Your task to perform on an android device: Empty the shopping cart on ebay.com. Add "razer blade" to the cart on ebay.com, then select checkout. Image 0: 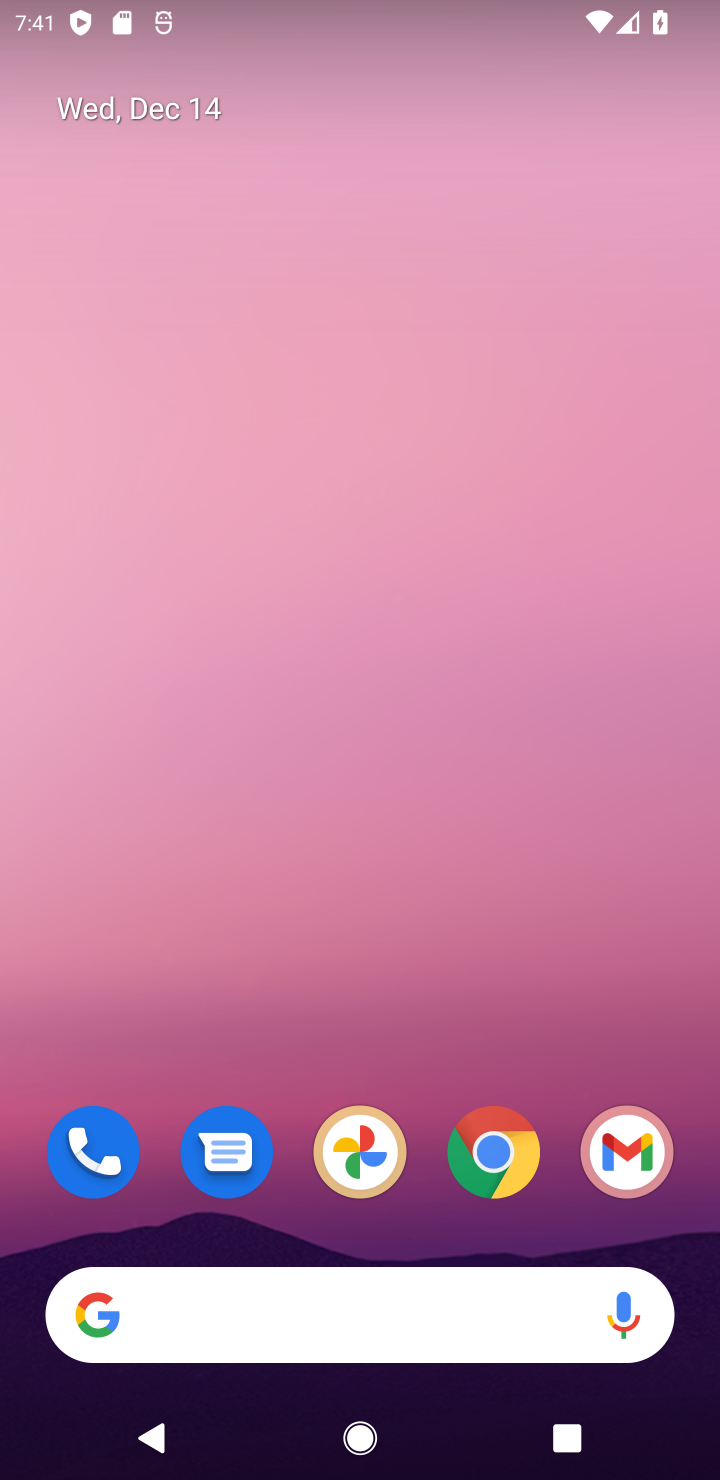
Step 0: click (496, 1167)
Your task to perform on an android device: Empty the shopping cart on ebay.com. Add "razer blade" to the cart on ebay.com, then select checkout. Image 1: 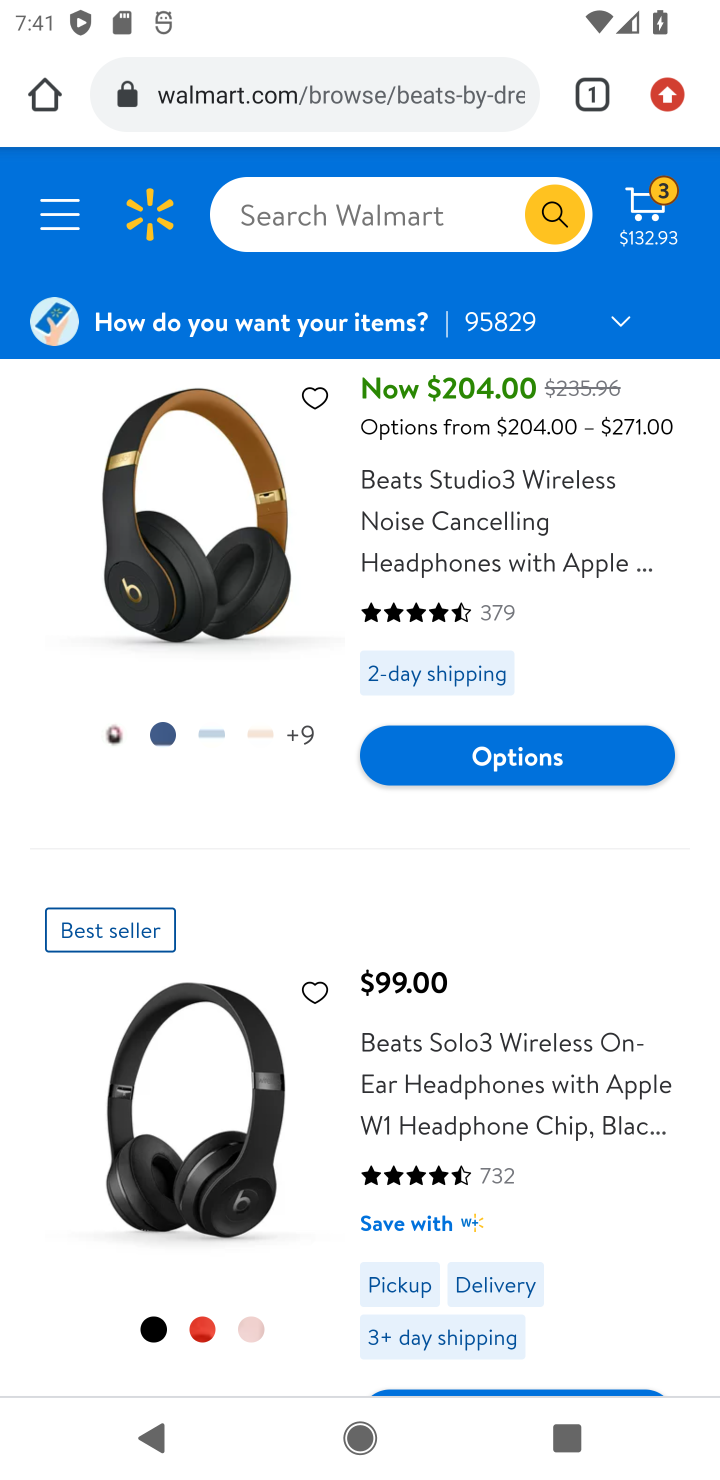
Step 1: click (313, 90)
Your task to perform on an android device: Empty the shopping cart on ebay.com. Add "razer blade" to the cart on ebay.com, then select checkout. Image 2: 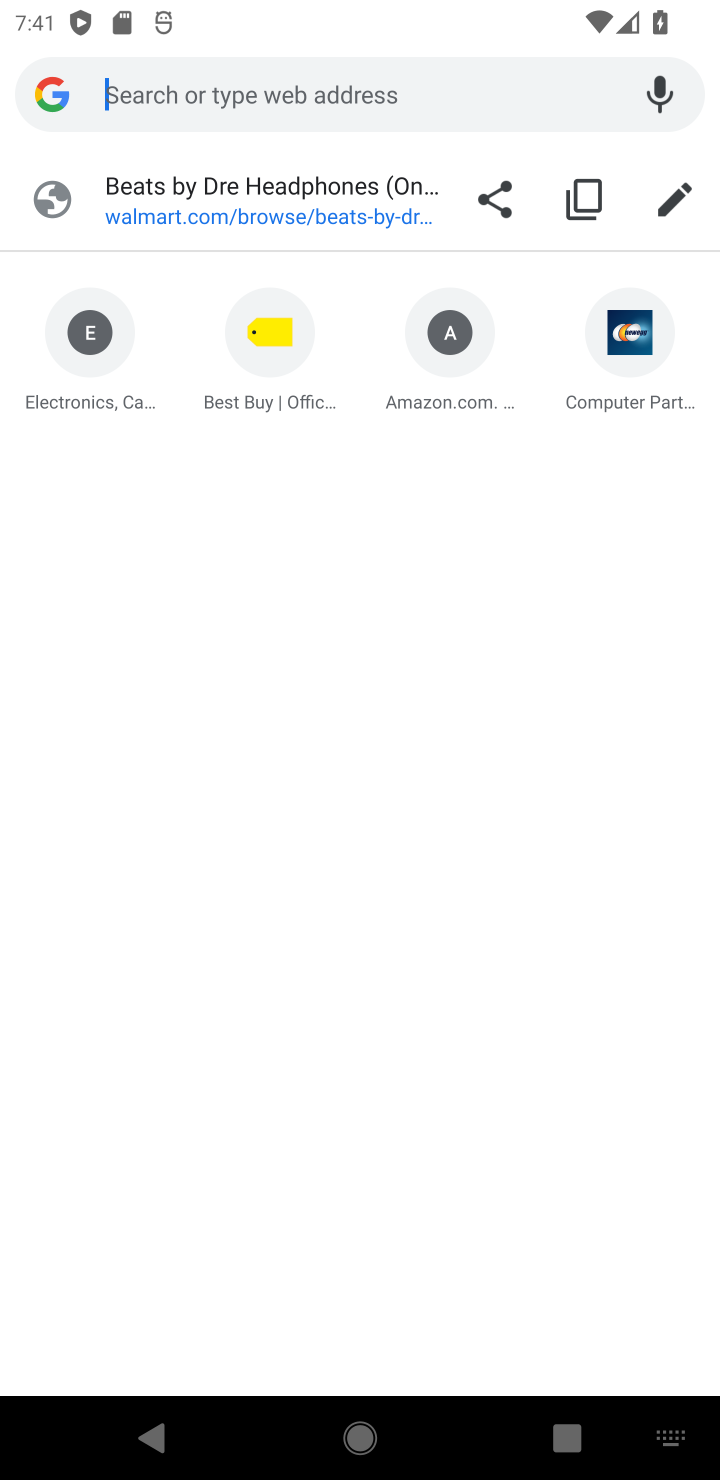
Step 2: type "ebay.com"
Your task to perform on an android device: Empty the shopping cart on ebay.com. Add "razer blade" to the cart on ebay.com, then select checkout. Image 3: 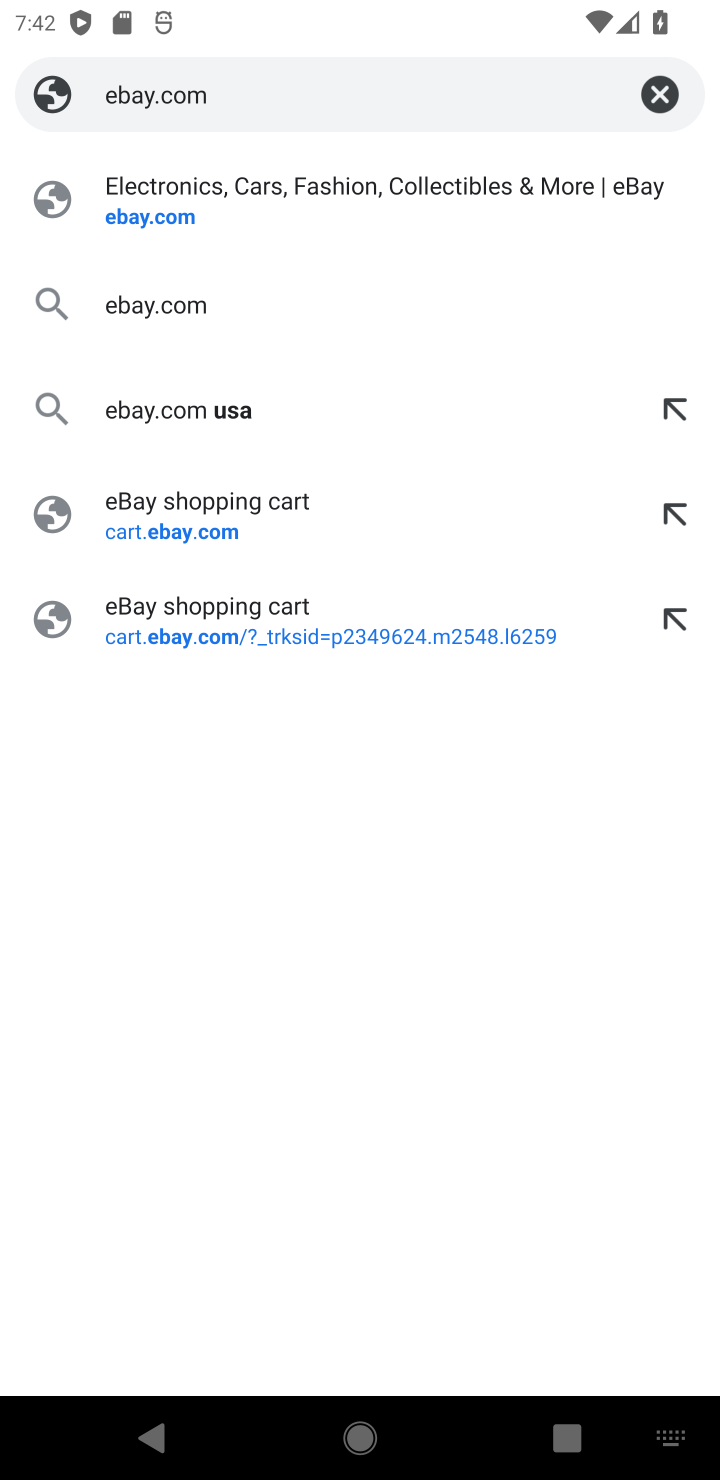
Step 3: click (164, 208)
Your task to perform on an android device: Empty the shopping cart on ebay.com. Add "razer blade" to the cart on ebay.com, then select checkout. Image 4: 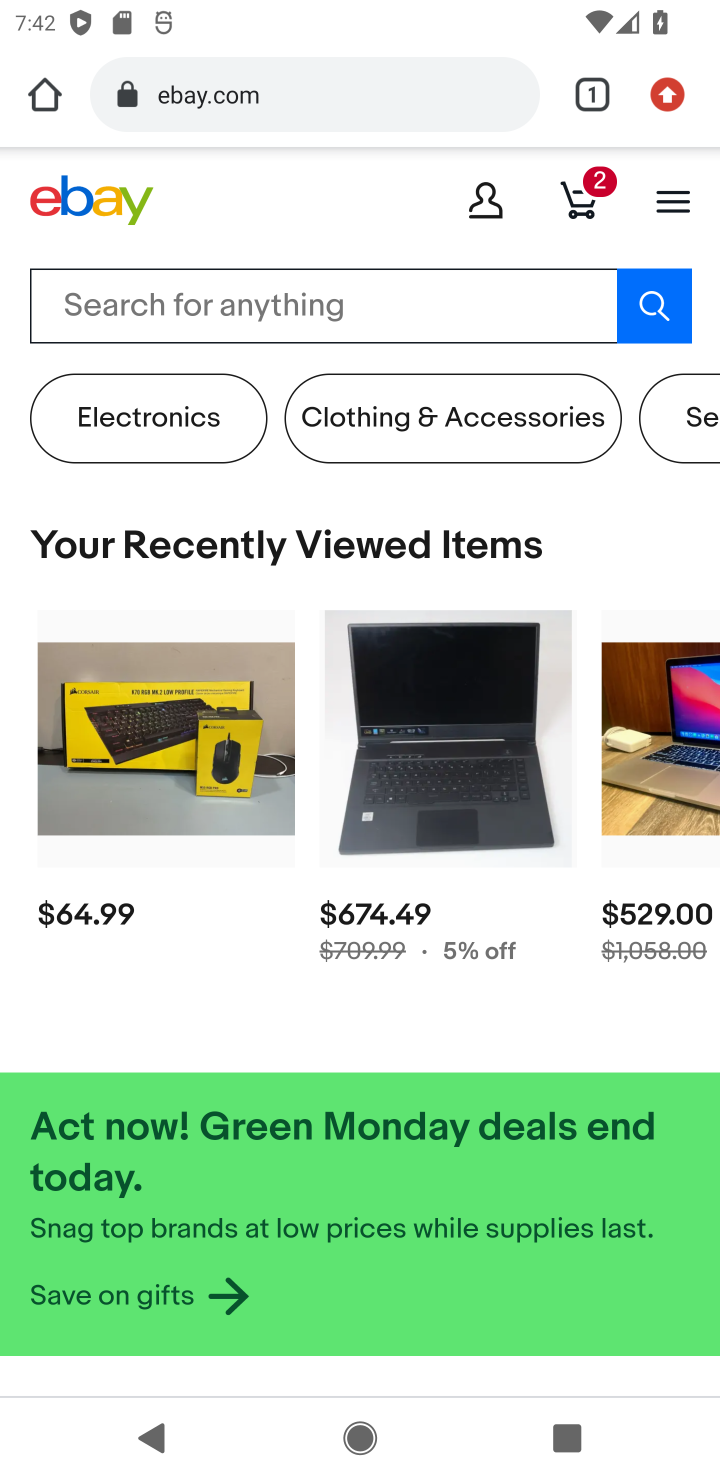
Step 4: click (597, 195)
Your task to perform on an android device: Empty the shopping cart on ebay.com. Add "razer blade" to the cart on ebay.com, then select checkout. Image 5: 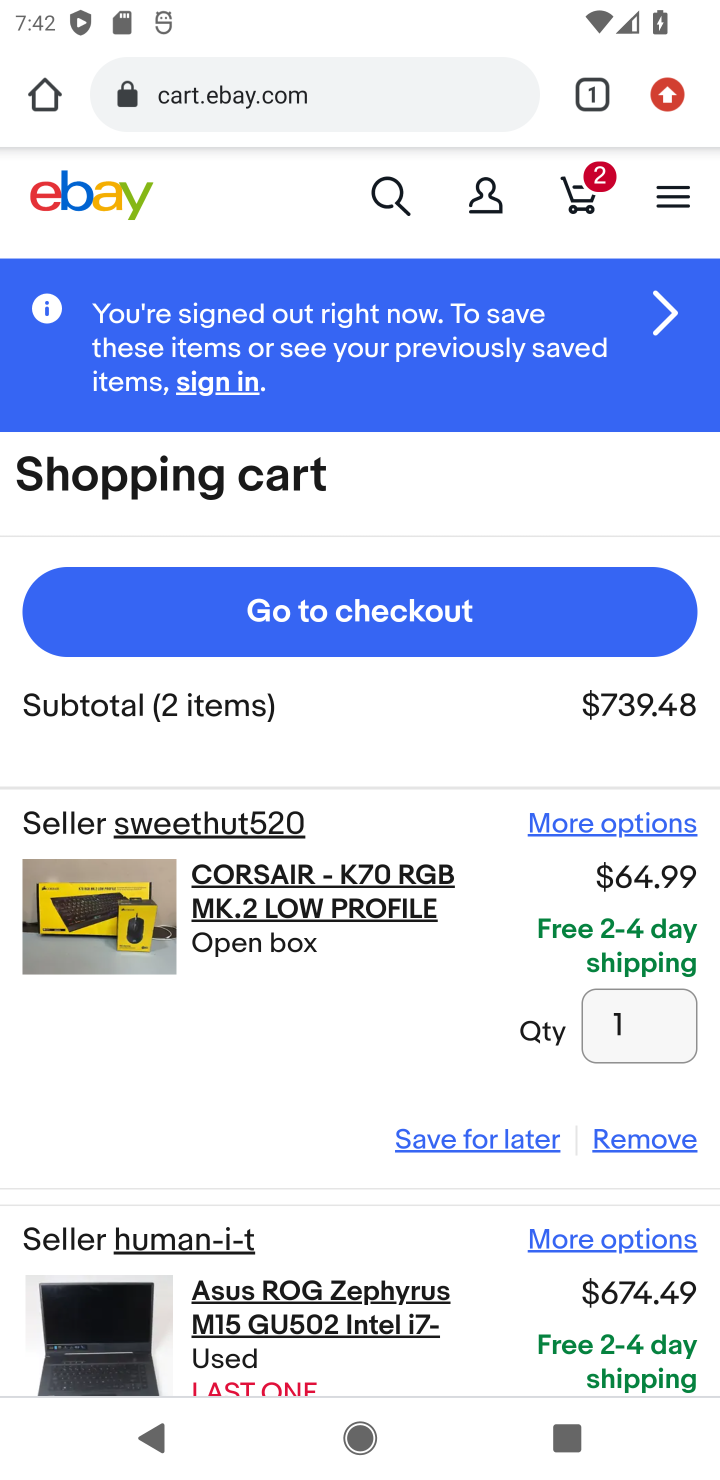
Step 5: click (647, 1130)
Your task to perform on an android device: Empty the shopping cart on ebay.com. Add "razer blade" to the cart on ebay.com, then select checkout. Image 6: 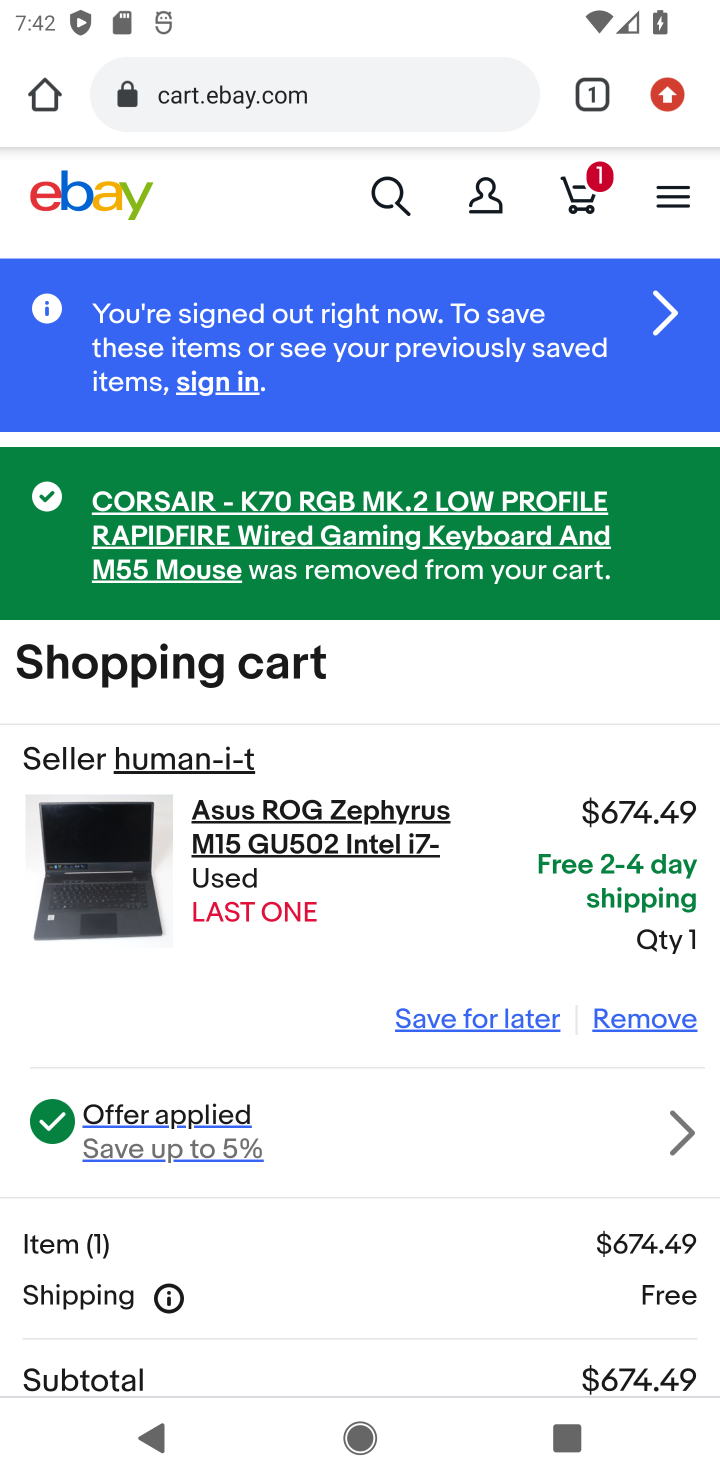
Step 6: click (625, 1026)
Your task to perform on an android device: Empty the shopping cart on ebay.com. Add "razer blade" to the cart on ebay.com, then select checkout. Image 7: 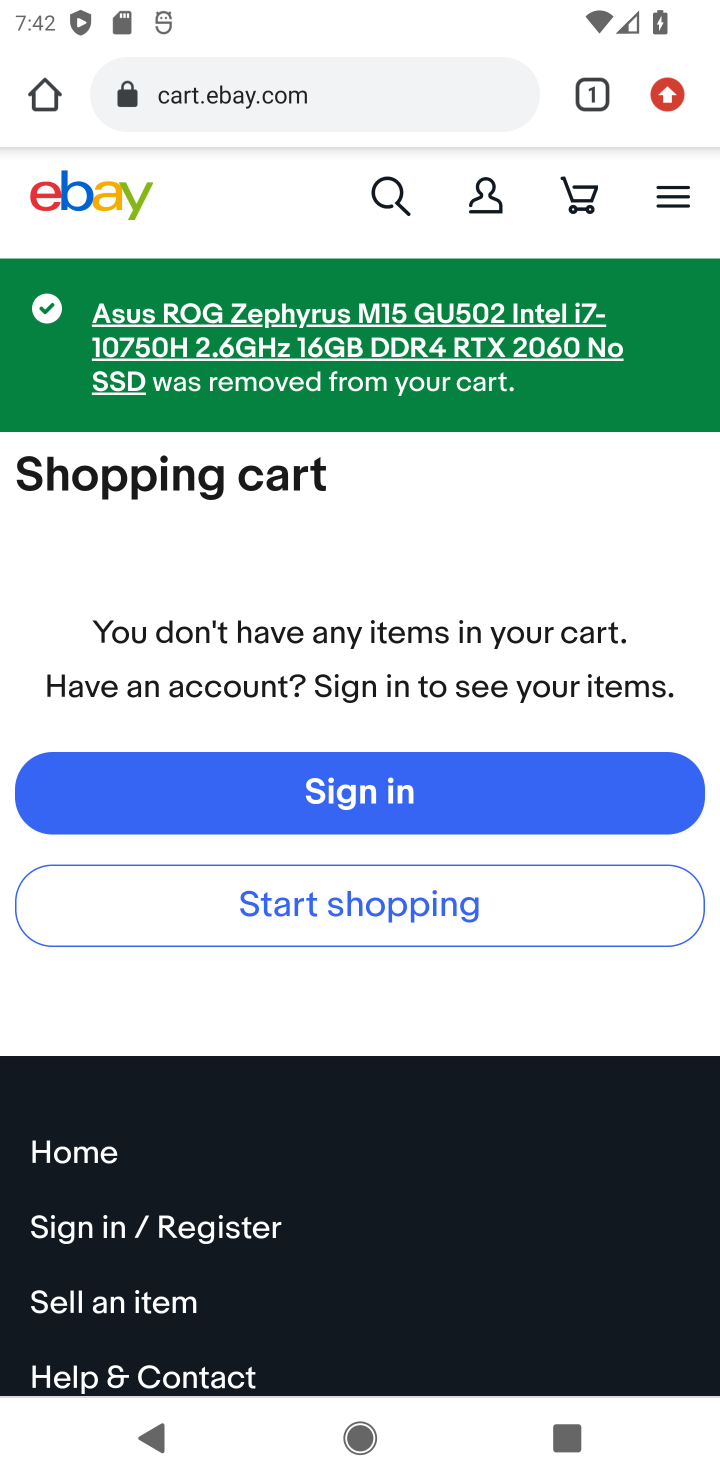
Step 7: click (383, 201)
Your task to perform on an android device: Empty the shopping cart on ebay.com. Add "razer blade" to the cart on ebay.com, then select checkout. Image 8: 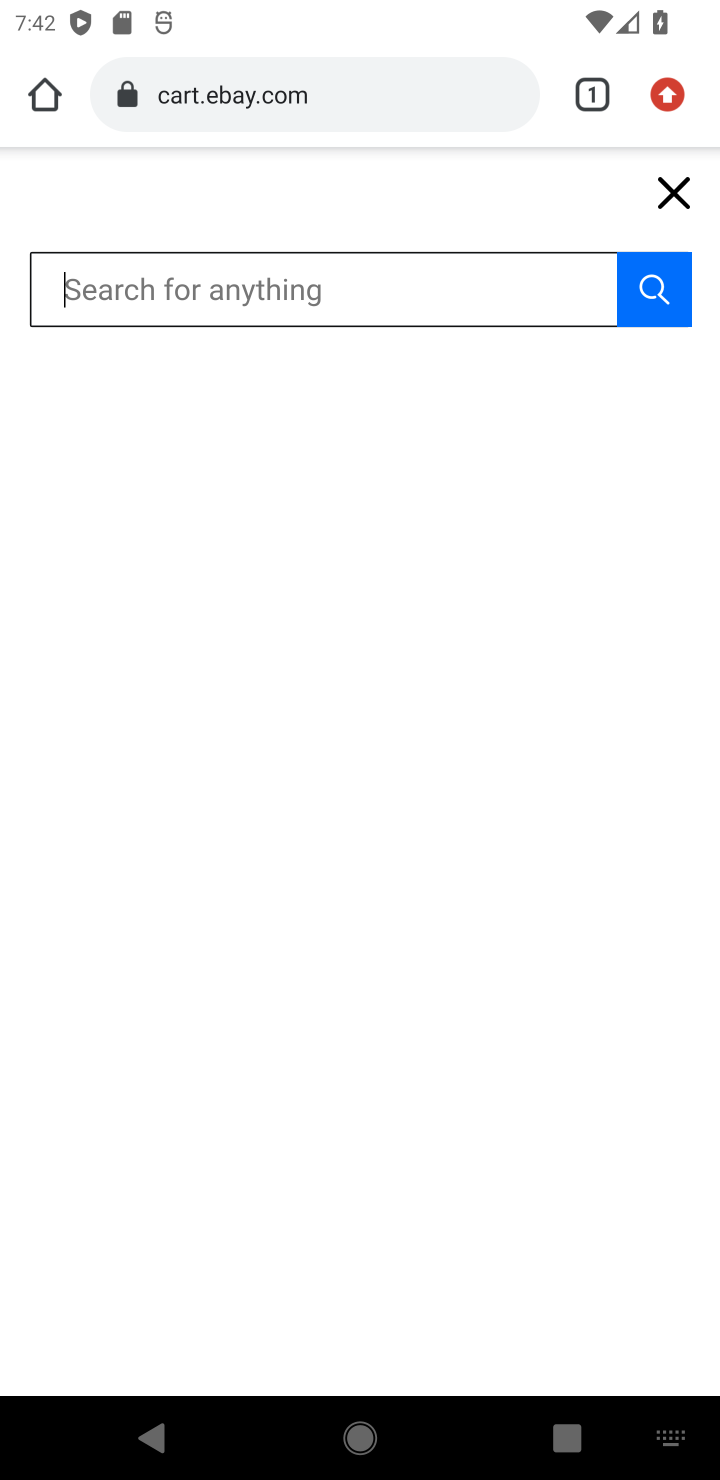
Step 8: type "razer blade"
Your task to perform on an android device: Empty the shopping cart on ebay.com. Add "razer blade" to the cart on ebay.com, then select checkout. Image 9: 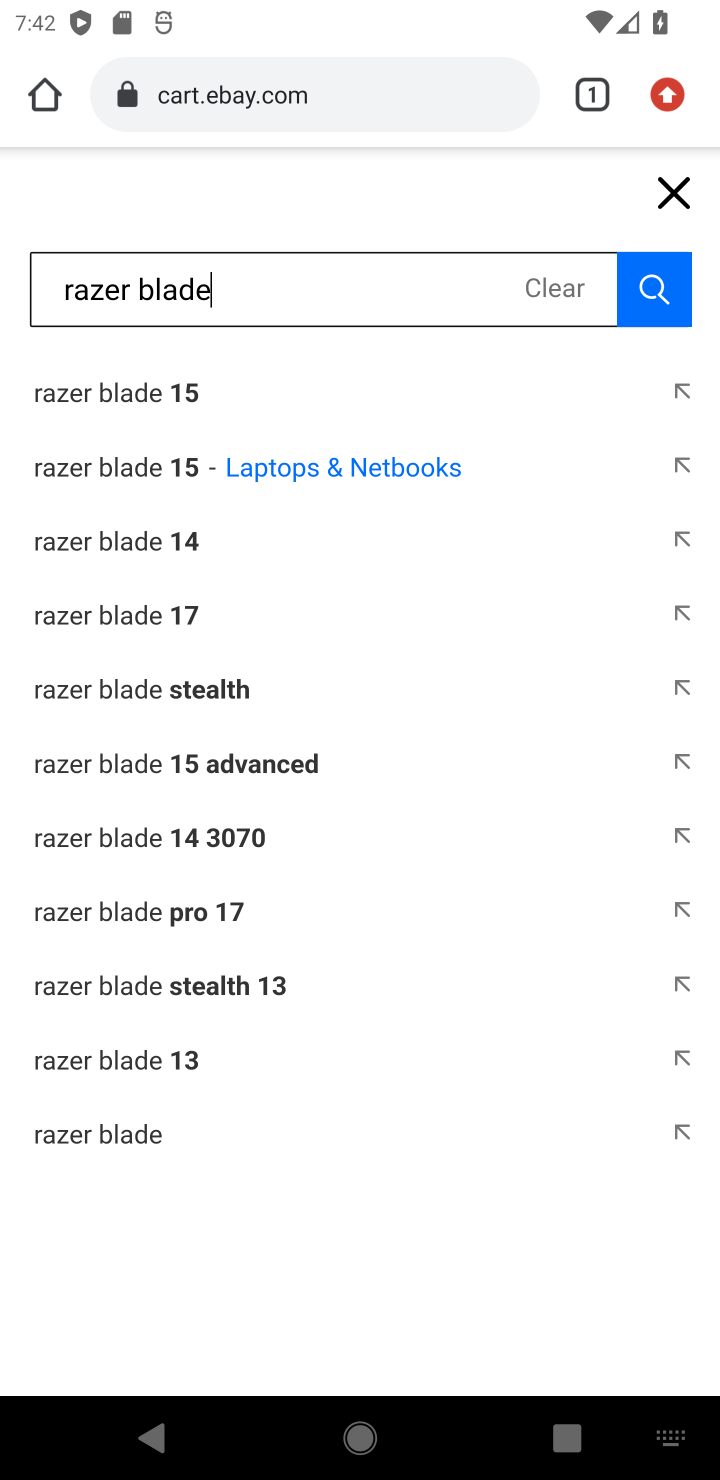
Step 9: click (150, 1143)
Your task to perform on an android device: Empty the shopping cart on ebay.com. Add "razer blade" to the cart on ebay.com, then select checkout. Image 10: 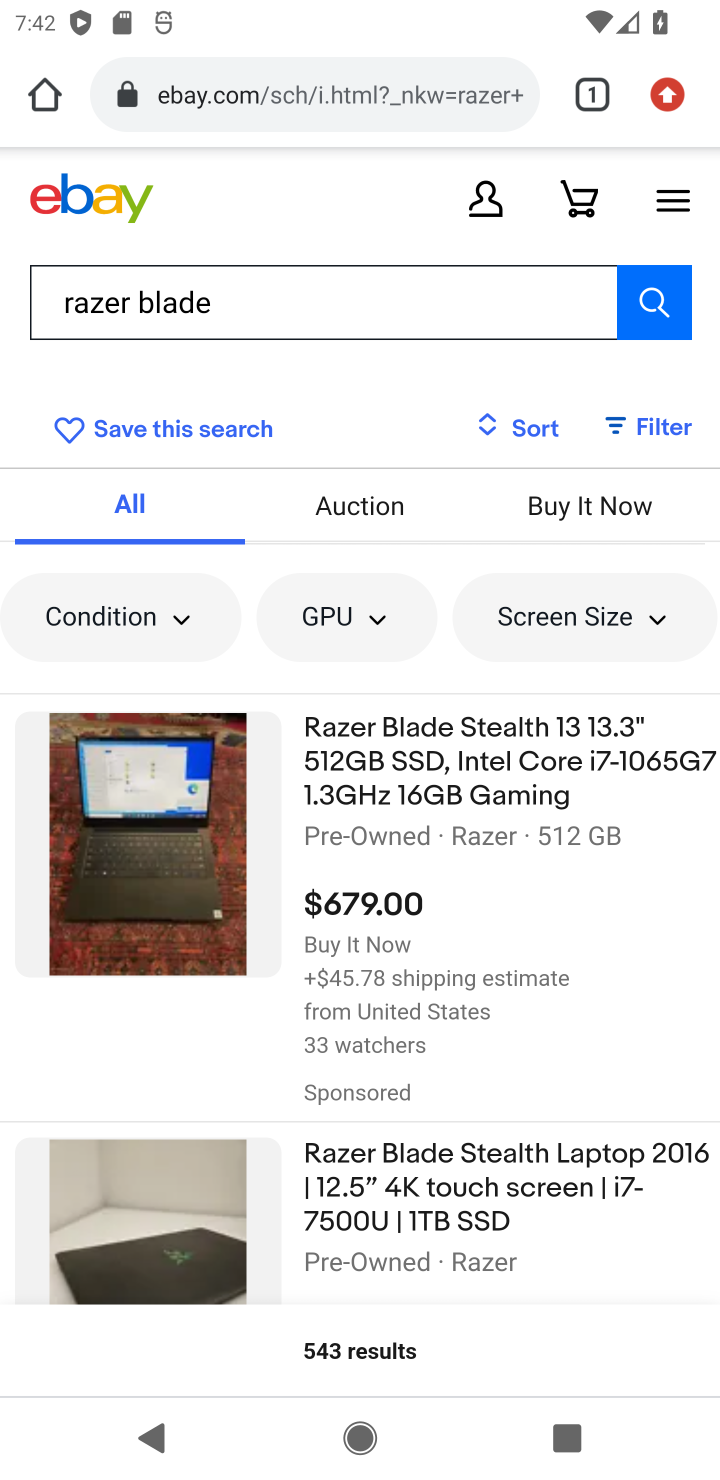
Step 10: click (350, 792)
Your task to perform on an android device: Empty the shopping cart on ebay.com. Add "razer blade" to the cart on ebay.com, then select checkout. Image 11: 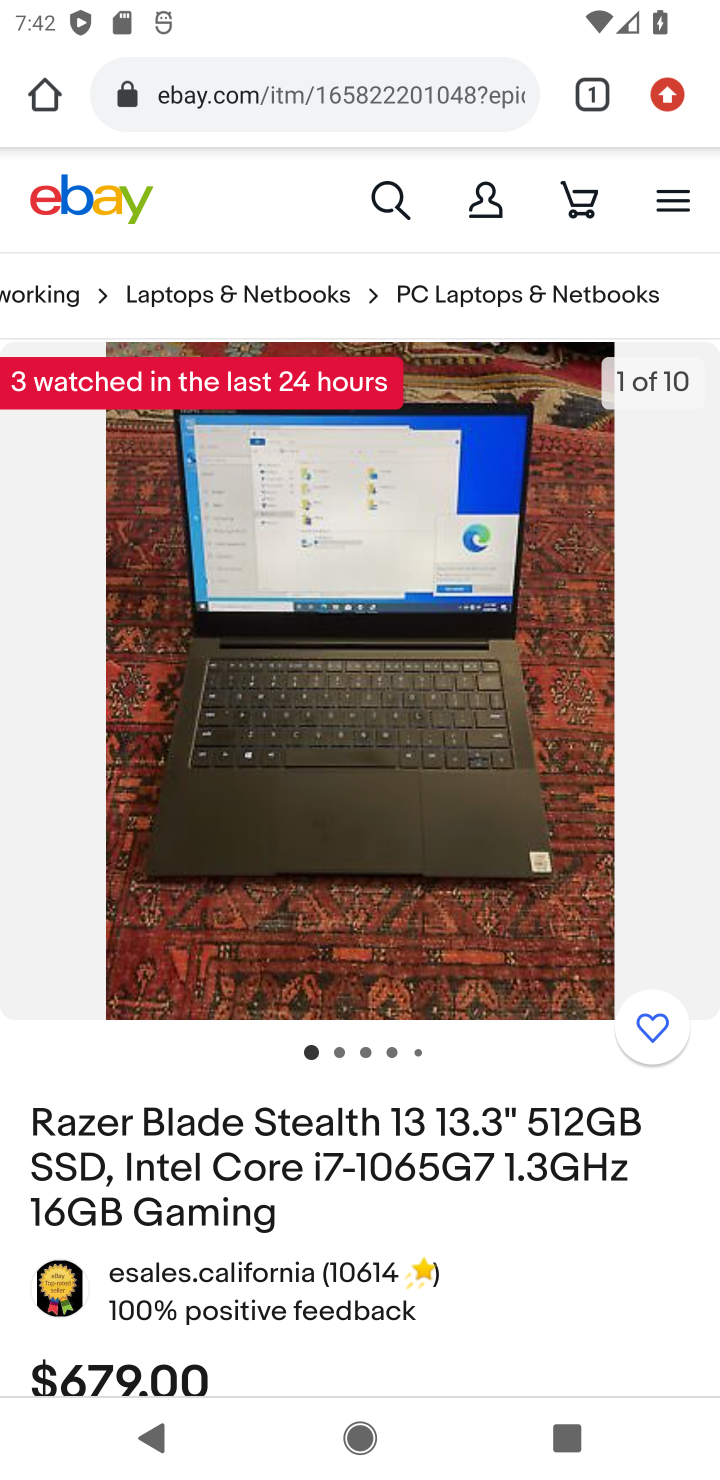
Step 11: drag from (381, 919) to (349, 401)
Your task to perform on an android device: Empty the shopping cart on ebay.com. Add "razer blade" to the cart on ebay.com, then select checkout. Image 12: 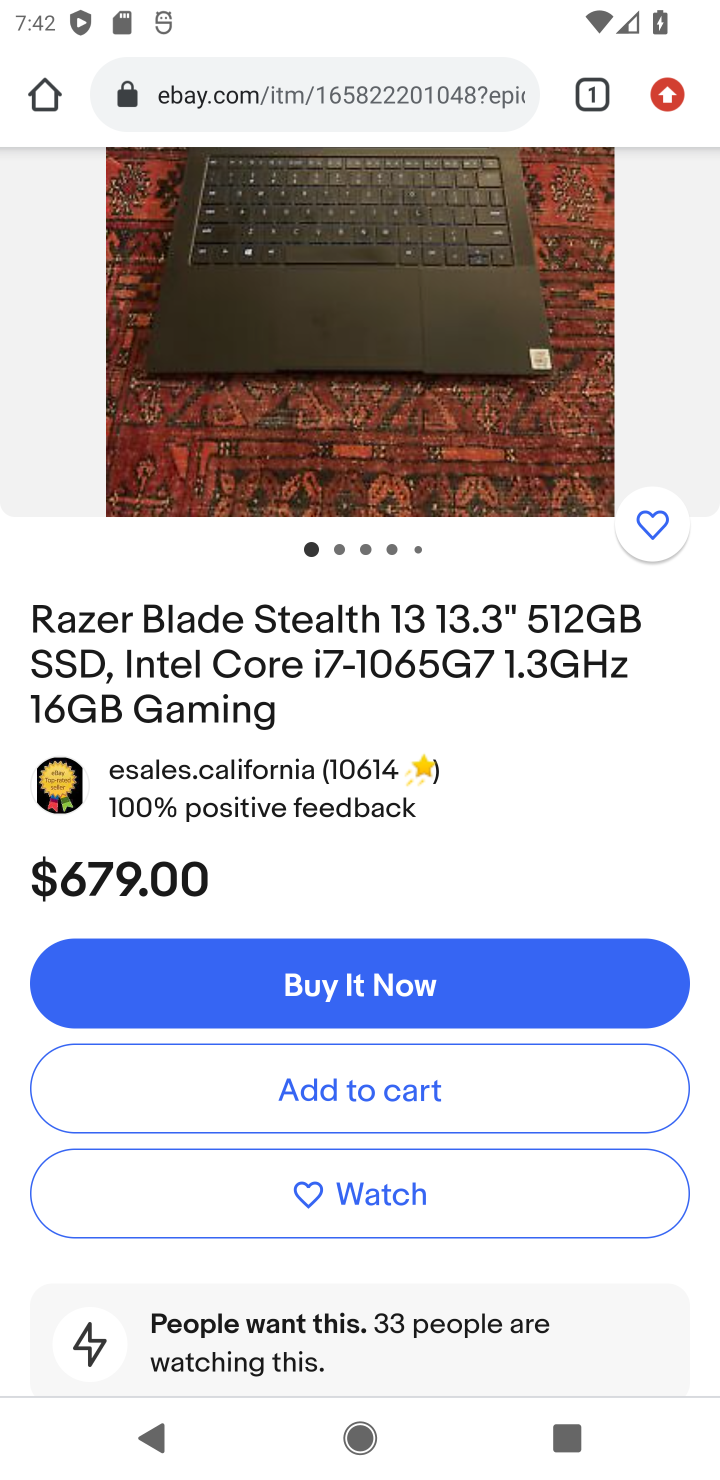
Step 12: click (385, 1097)
Your task to perform on an android device: Empty the shopping cart on ebay.com. Add "razer blade" to the cart on ebay.com, then select checkout. Image 13: 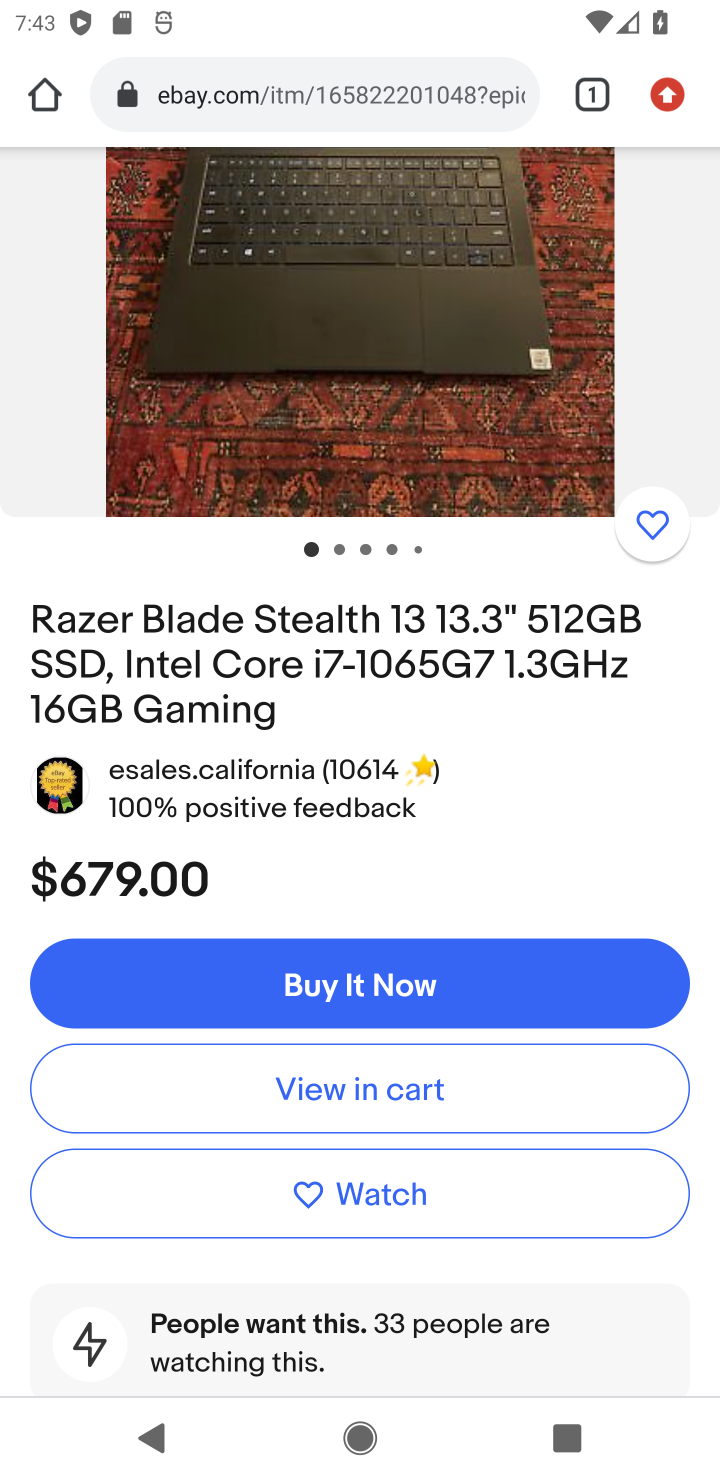
Step 13: click (383, 1097)
Your task to perform on an android device: Empty the shopping cart on ebay.com. Add "razer blade" to the cart on ebay.com, then select checkout. Image 14: 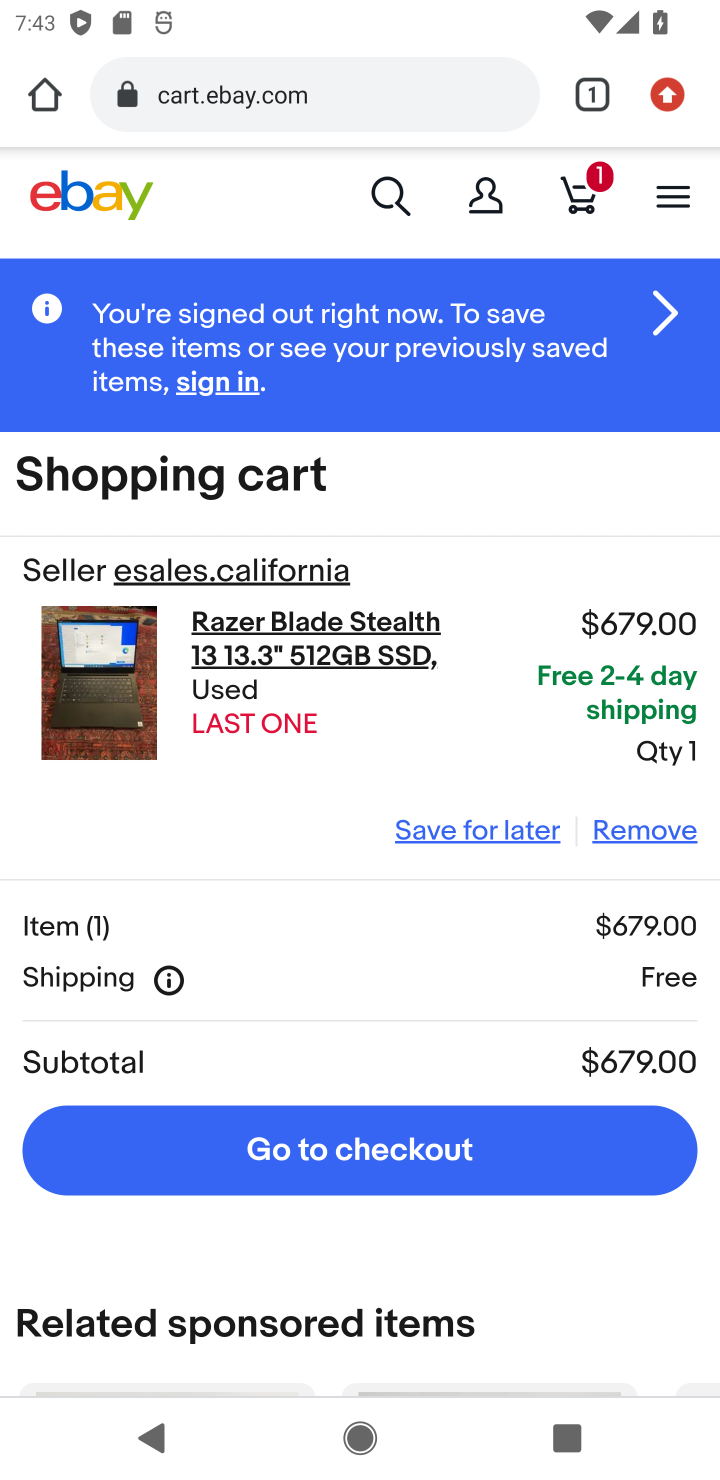
Step 14: click (367, 1161)
Your task to perform on an android device: Empty the shopping cart on ebay.com. Add "razer blade" to the cart on ebay.com, then select checkout. Image 15: 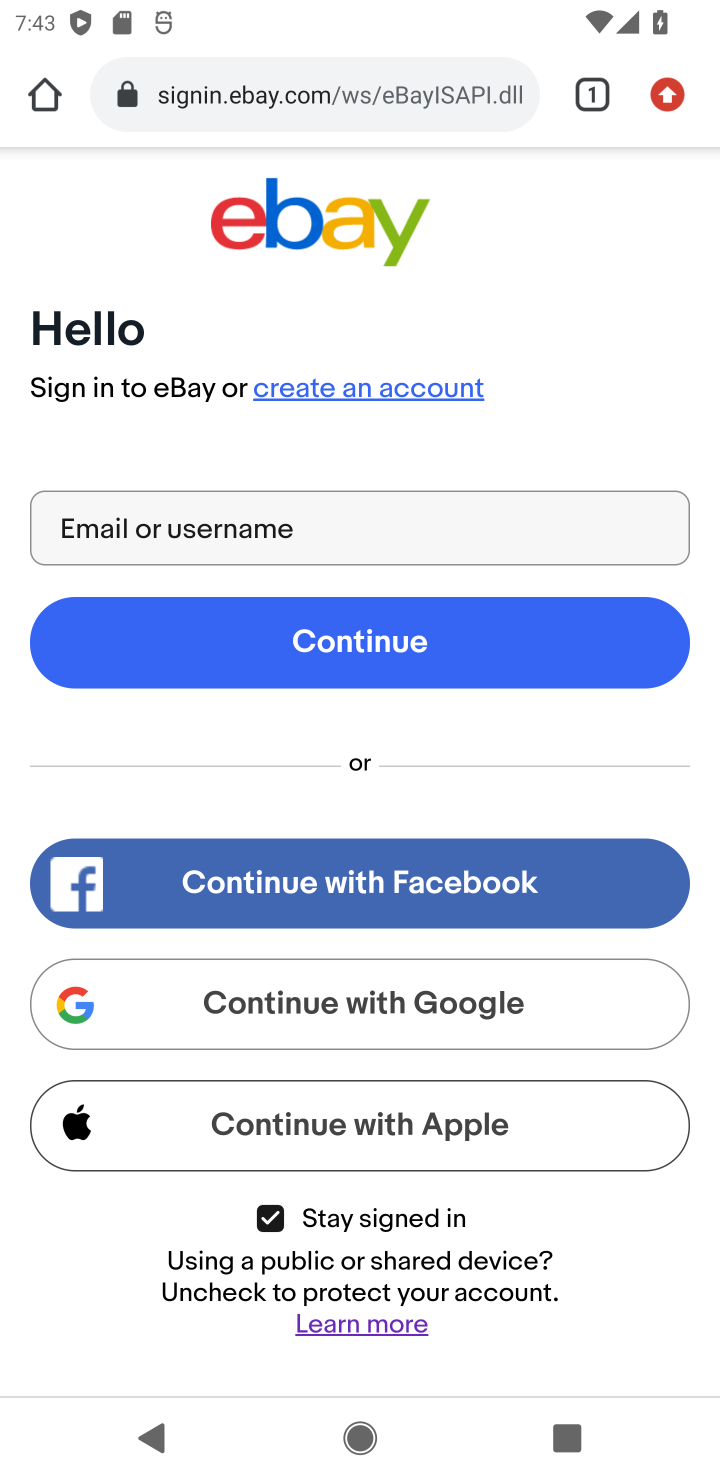
Step 15: task complete